Your task to perform on an android device: show emergency info Image 0: 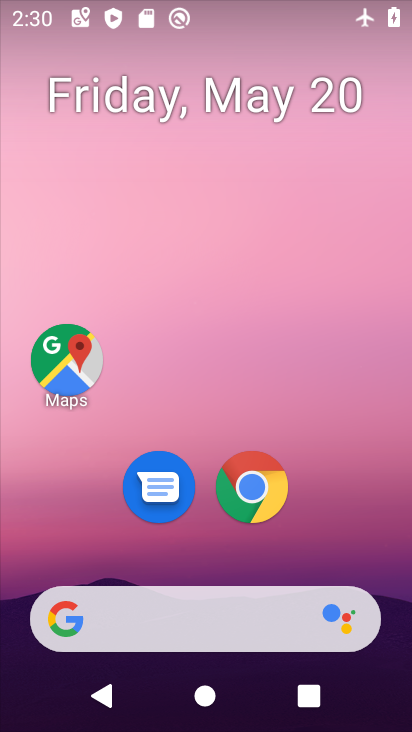
Step 0: drag from (363, 521) to (317, 57)
Your task to perform on an android device: show emergency info Image 1: 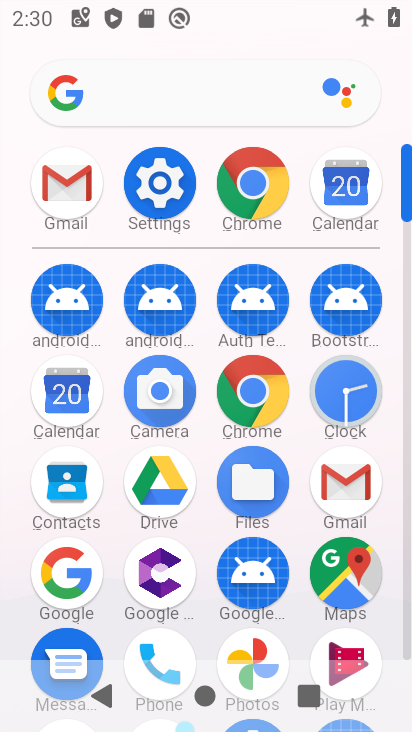
Step 1: click (142, 186)
Your task to perform on an android device: show emergency info Image 2: 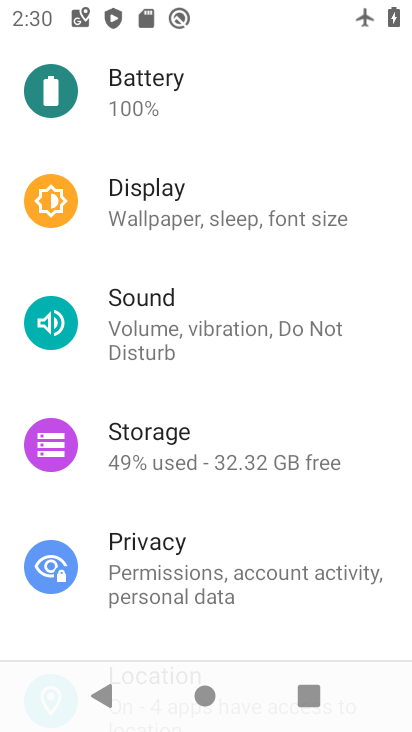
Step 2: drag from (221, 583) to (213, 171)
Your task to perform on an android device: show emergency info Image 3: 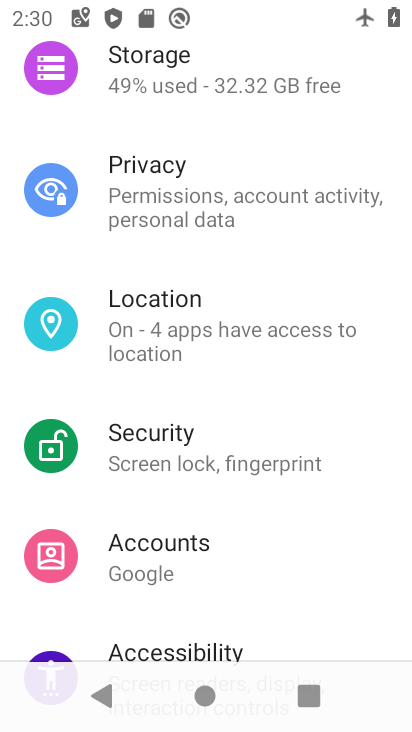
Step 3: drag from (233, 604) to (275, 181)
Your task to perform on an android device: show emergency info Image 4: 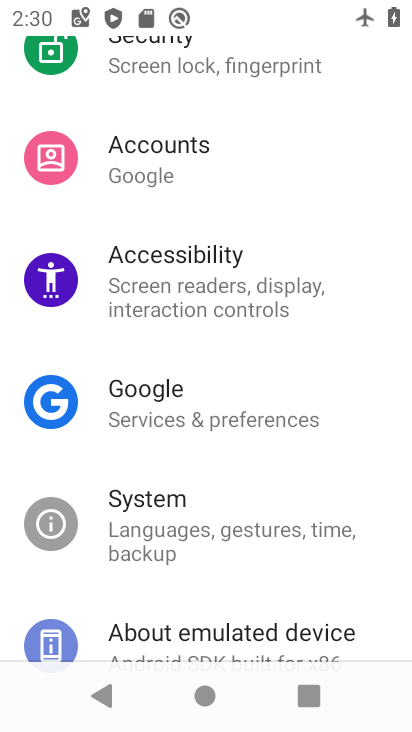
Step 4: drag from (220, 582) to (309, 179)
Your task to perform on an android device: show emergency info Image 5: 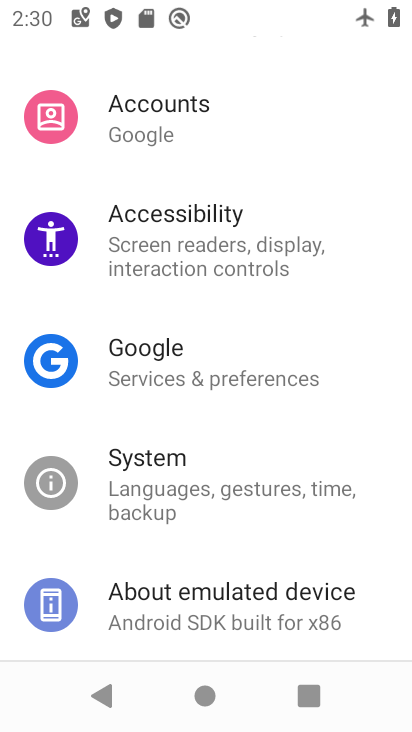
Step 5: click (240, 610)
Your task to perform on an android device: show emergency info Image 6: 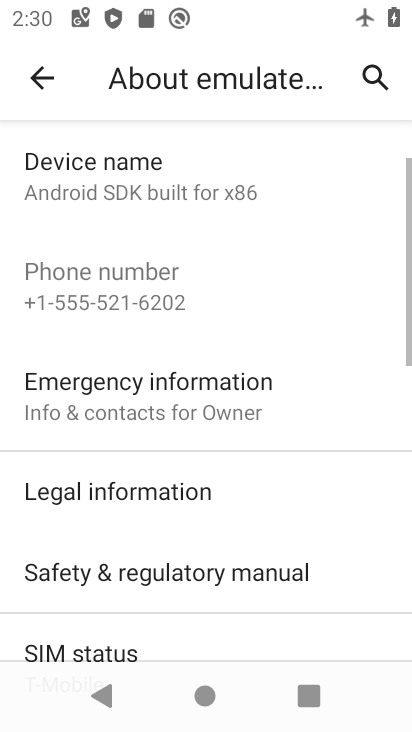
Step 6: click (158, 382)
Your task to perform on an android device: show emergency info Image 7: 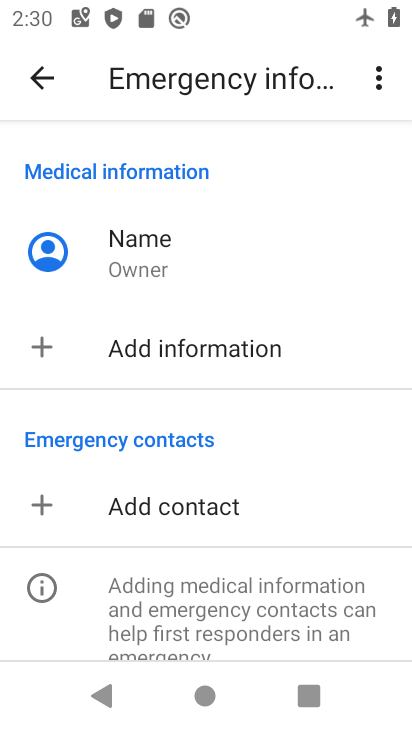
Step 7: task complete